Your task to perform on an android device: Open Reddit.com Image 0: 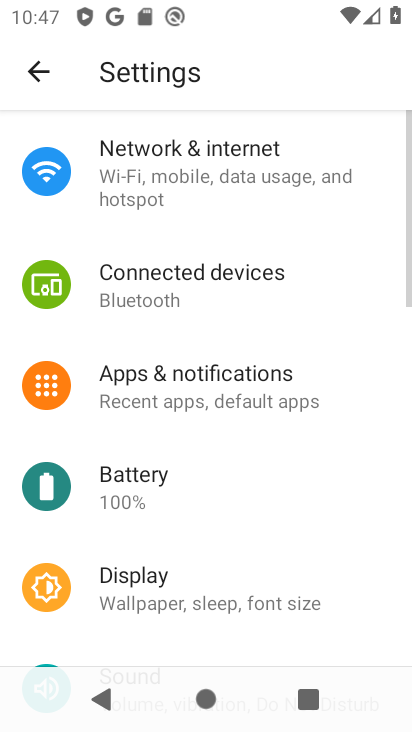
Step 0: press home button
Your task to perform on an android device: Open Reddit.com Image 1: 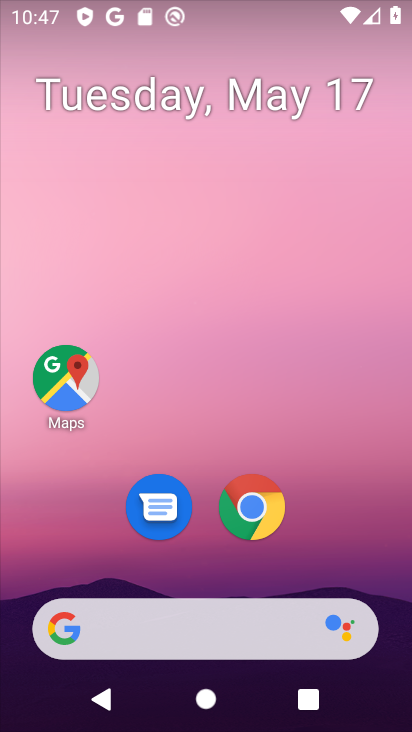
Step 1: click (170, 624)
Your task to perform on an android device: Open Reddit.com Image 2: 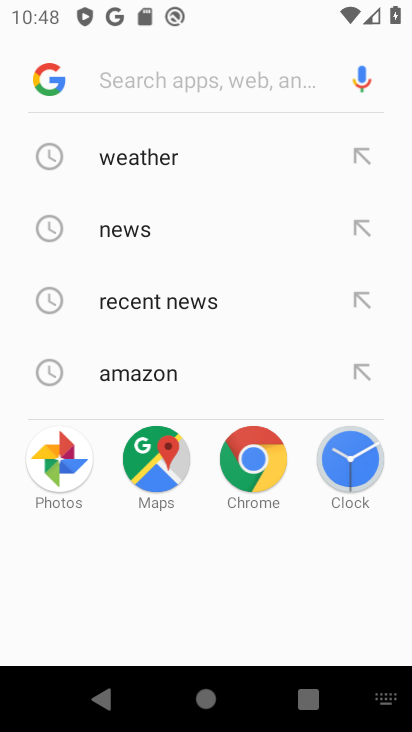
Step 2: type "Reddit.com"
Your task to perform on an android device: Open Reddit.com Image 3: 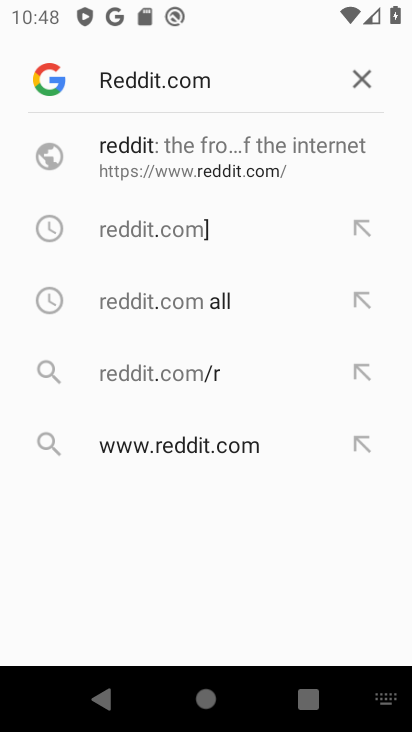
Step 3: click (211, 170)
Your task to perform on an android device: Open Reddit.com Image 4: 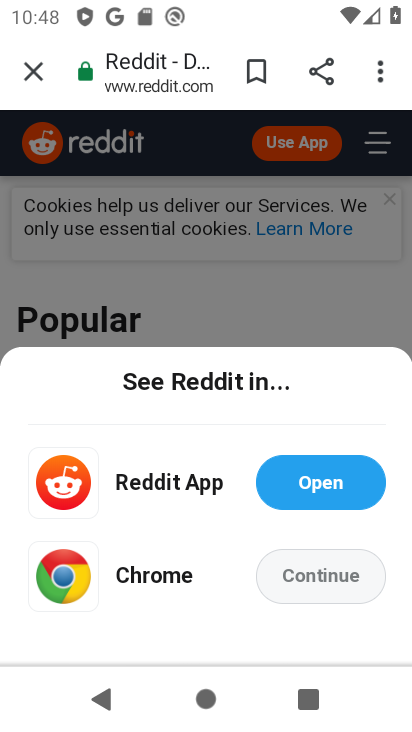
Step 4: click (349, 593)
Your task to perform on an android device: Open Reddit.com Image 5: 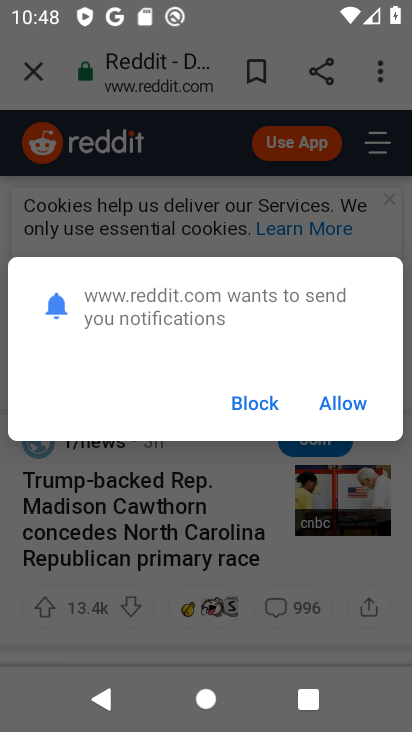
Step 5: click (333, 406)
Your task to perform on an android device: Open Reddit.com Image 6: 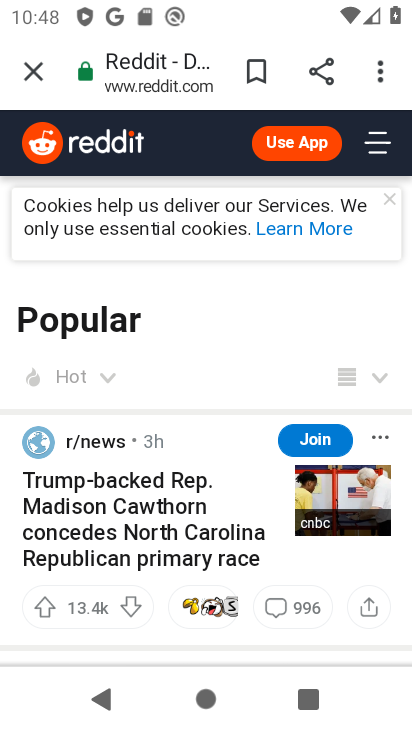
Step 6: task complete